Your task to perform on an android device: What's on my calendar today? Image 0: 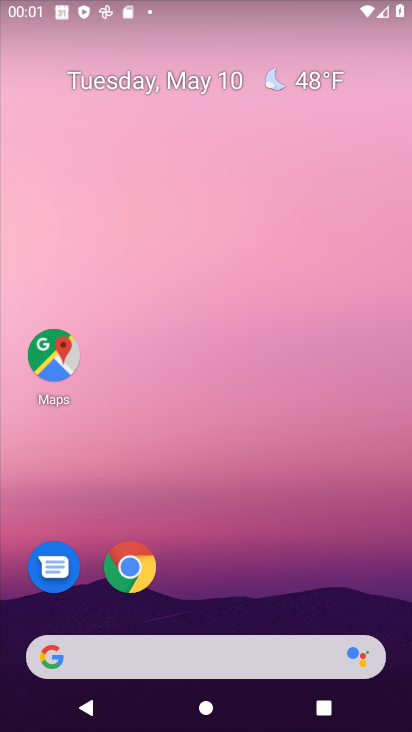
Step 0: drag from (281, 578) to (257, 183)
Your task to perform on an android device: What's on my calendar today? Image 1: 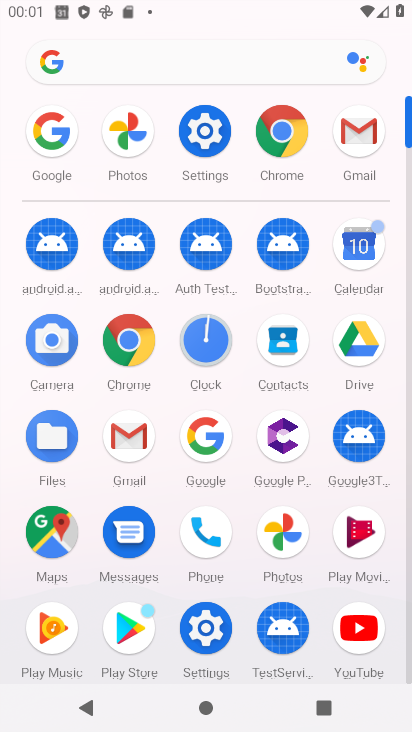
Step 1: click (358, 263)
Your task to perform on an android device: What's on my calendar today? Image 2: 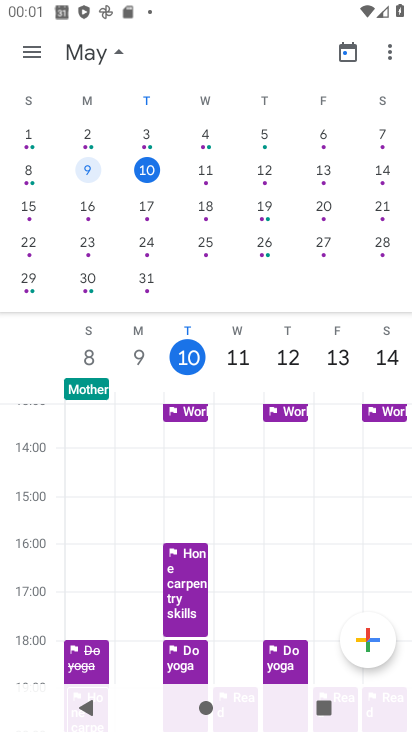
Step 2: click (143, 169)
Your task to perform on an android device: What's on my calendar today? Image 3: 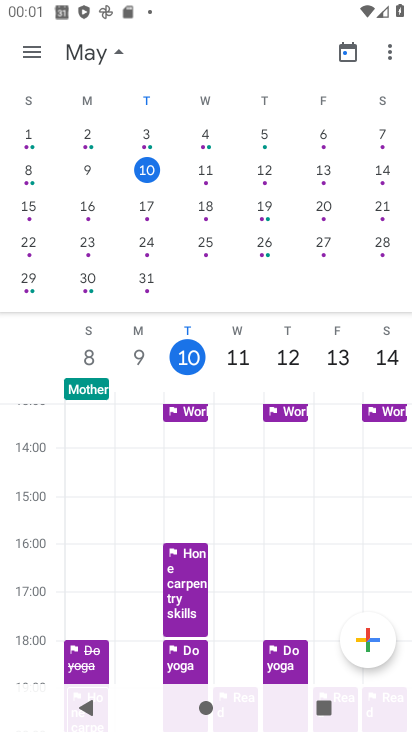
Step 3: task complete